Your task to perform on an android device: turn notification dots on Image 0: 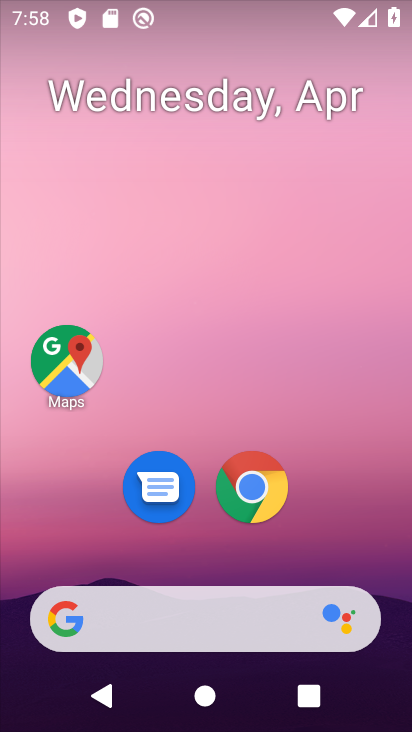
Step 0: drag from (369, 560) to (323, 132)
Your task to perform on an android device: turn notification dots on Image 1: 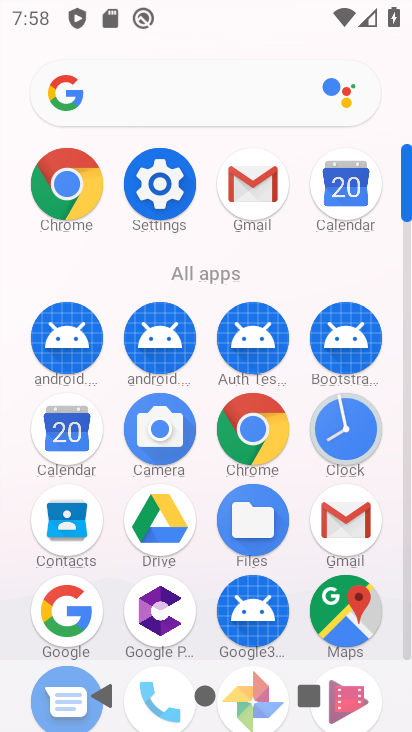
Step 1: click (173, 186)
Your task to perform on an android device: turn notification dots on Image 2: 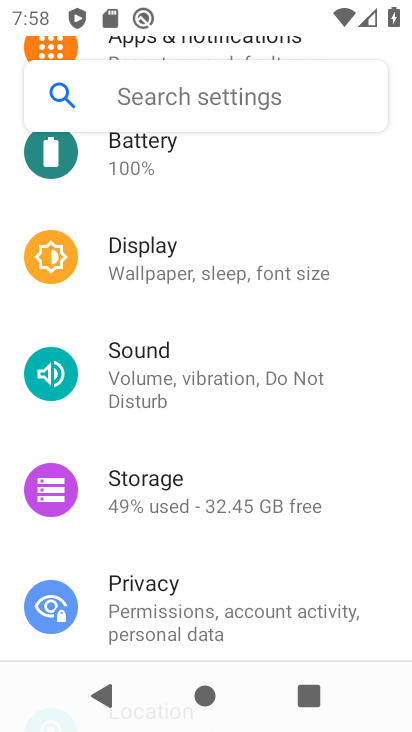
Step 2: drag from (263, 590) to (206, 117)
Your task to perform on an android device: turn notification dots on Image 3: 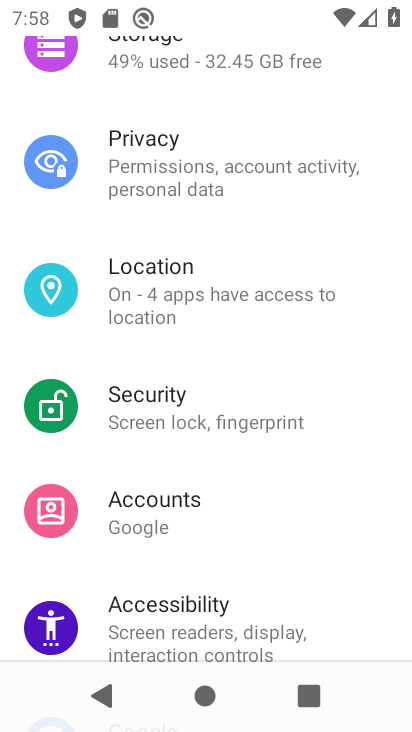
Step 3: drag from (272, 547) to (311, 171)
Your task to perform on an android device: turn notification dots on Image 4: 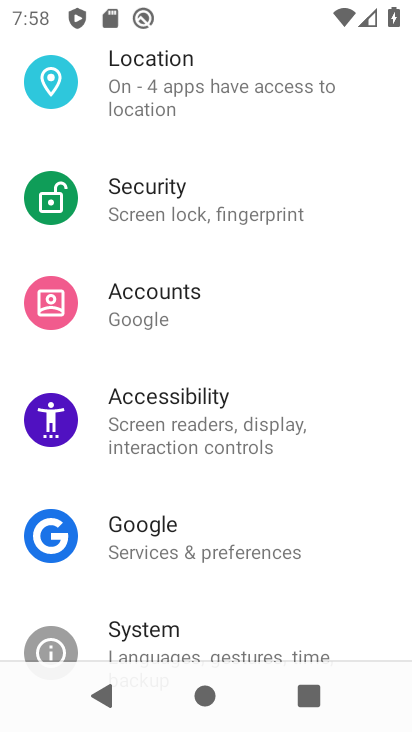
Step 4: drag from (287, 253) to (299, 552)
Your task to perform on an android device: turn notification dots on Image 5: 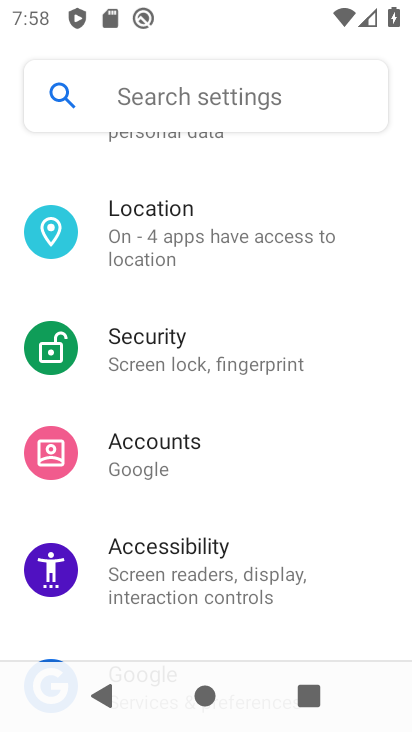
Step 5: drag from (331, 208) to (313, 538)
Your task to perform on an android device: turn notification dots on Image 6: 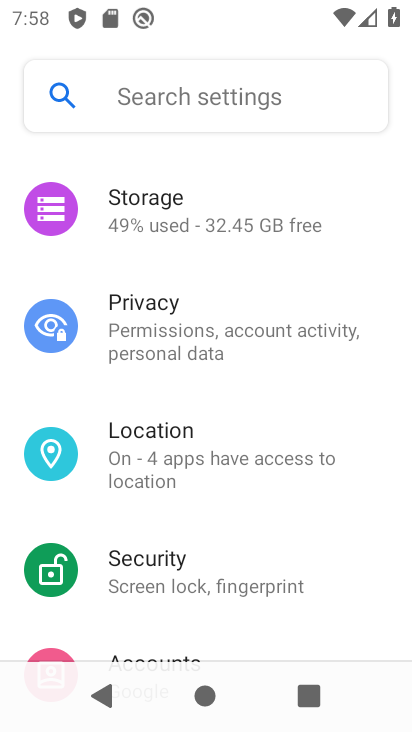
Step 6: drag from (272, 237) to (262, 556)
Your task to perform on an android device: turn notification dots on Image 7: 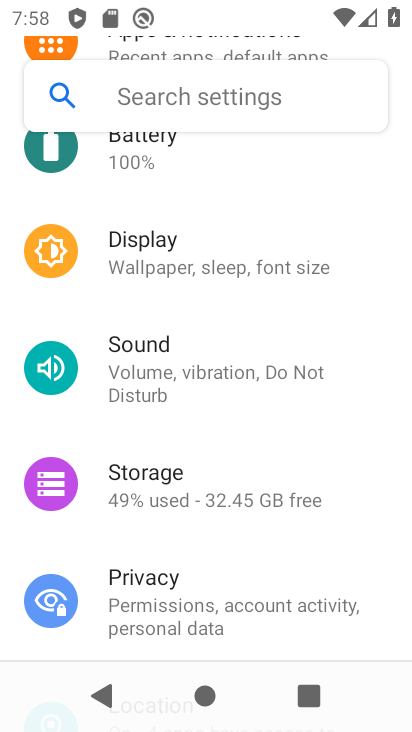
Step 7: drag from (274, 283) to (281, 571)
Your task to perform on an android device: turn notification dots on Image 8: 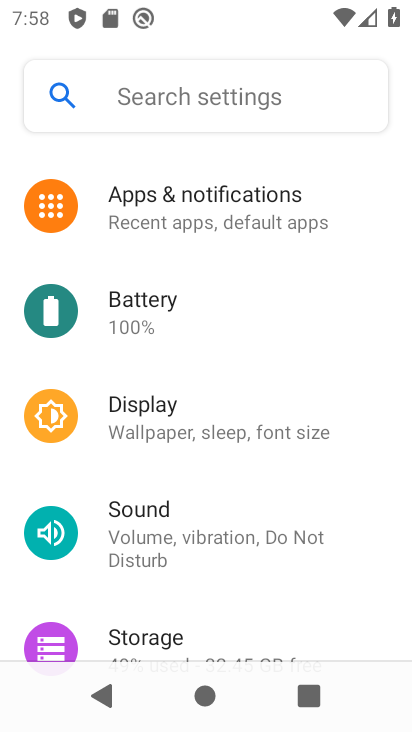
Step 8: drag from (255, 345) to (255, 492)
Your task to perform on an android device: turn notification dots on Image 9: 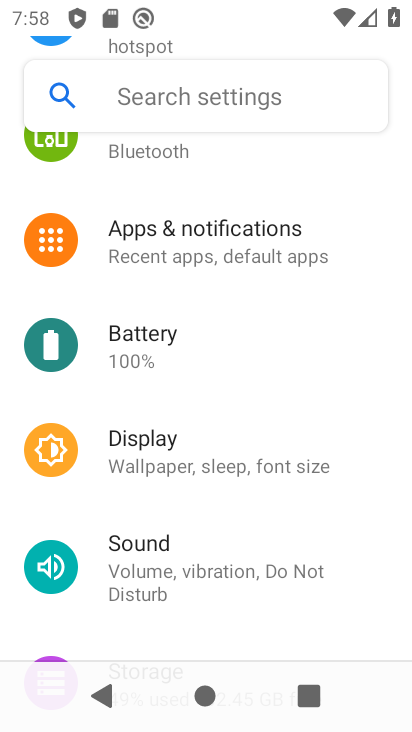
Step 9: drag from (260, 500) to (289, 144)
Your task to perform on an android device: turn notification dots on Image 10: 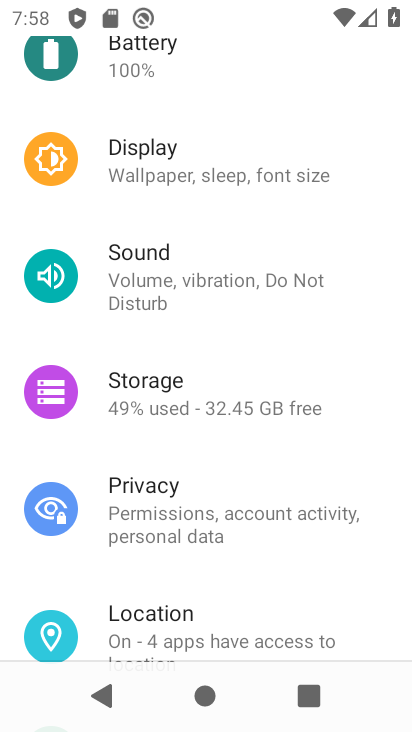
Step 10: drag from (236, 490) to (252, 191)
Your task to perform on an android device: turn notification dots on Image 11: 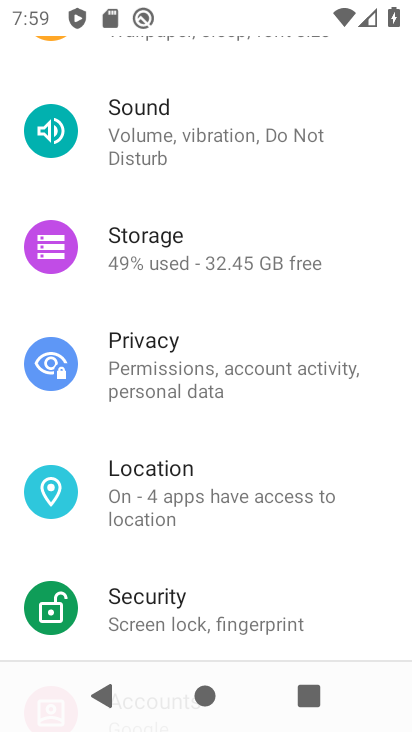
Step 11: drag from (168, 508) to (230, 225)
Your task to perform on an android device: turn notification dots on Image 12: 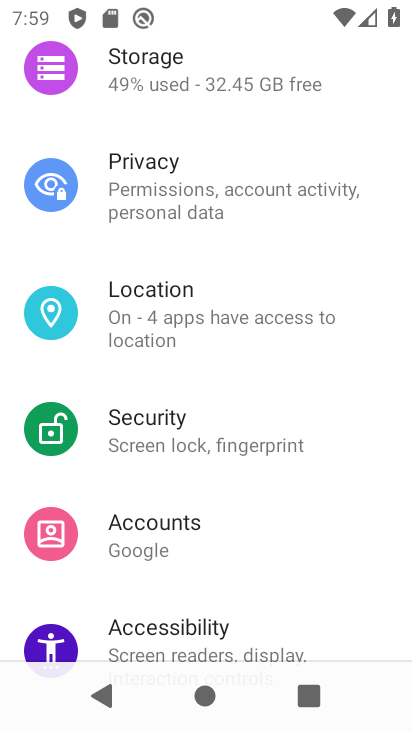
Step 12: drag from (190, 566) to (278, 222)
Your task to perform on an android device: turn notification dots on Image 13: 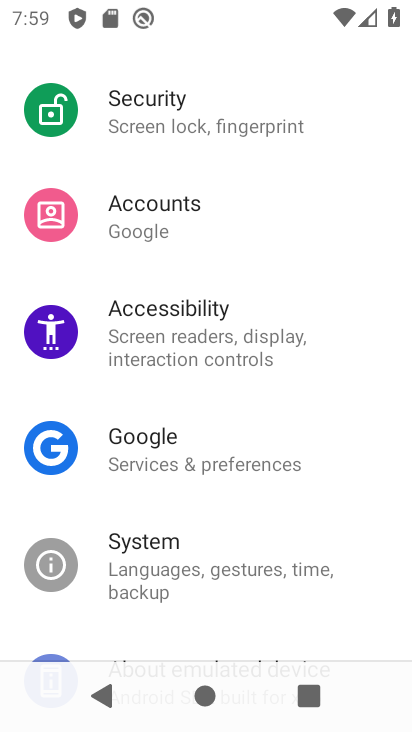
Step 13: drag from (265, 522) to (271, 191)
Your task to perform on an android device: turn notification dots on Image 14: 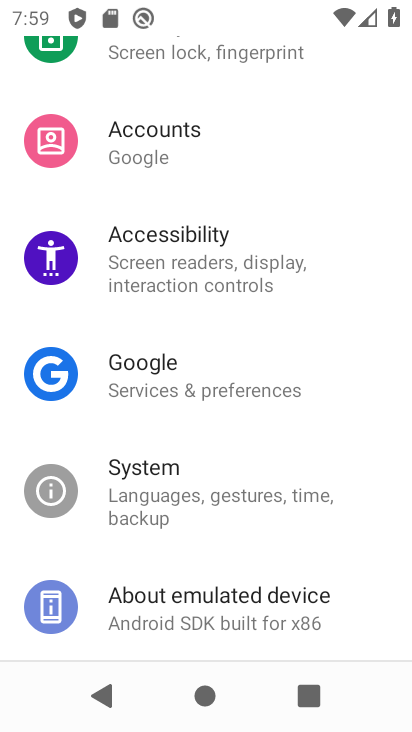
Step 14: drag from (283, 196) to (300, 525)
Your task to perform on an android device: turn notification dots on Image 15: 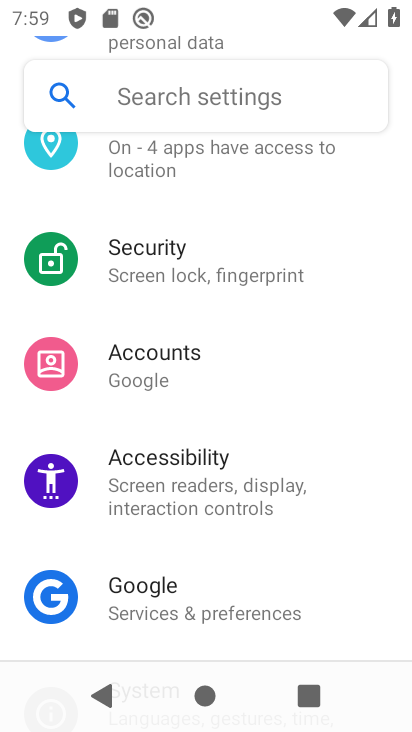
Step 15: drag from (302, 222) to (279, 538)
Your task to perform on an android device: turn notification dots on Image 16: 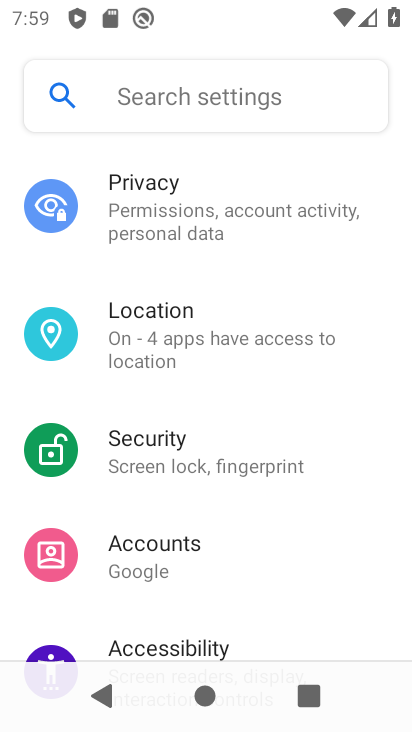
Step 16: drag from (284, 285) to (269, 536)
Your task to perform on an android device: turn notification dots on Image 17: 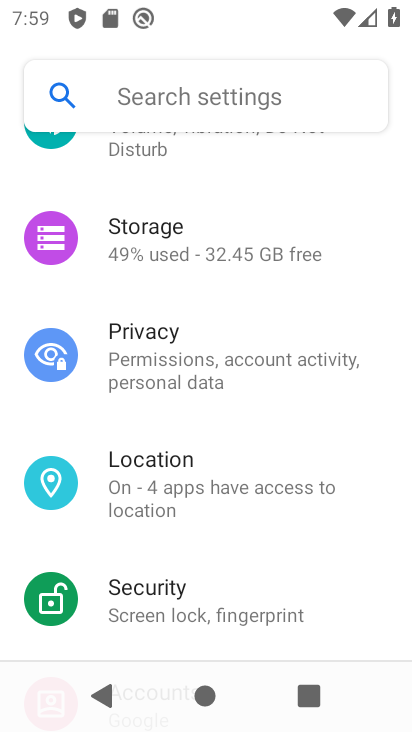
Step 17: drag from (252, 243) to (257, 536)
Your task to perform on an android device: turn notification dots on Image 18: 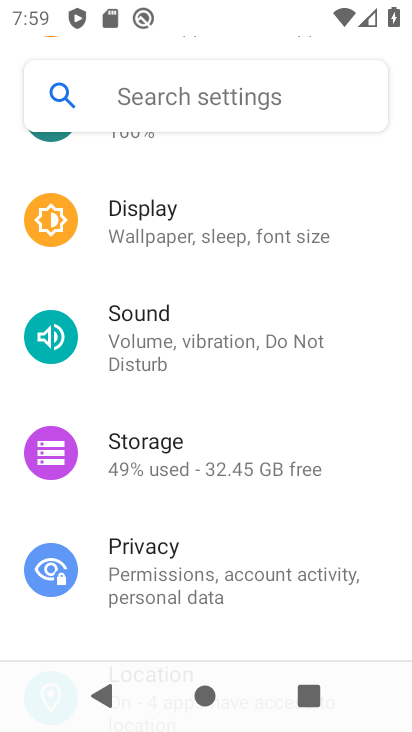
Step 18: drag from (271, 252) to (258, 536)
Your task to perform on an android device: turn notification dots on Image 19: 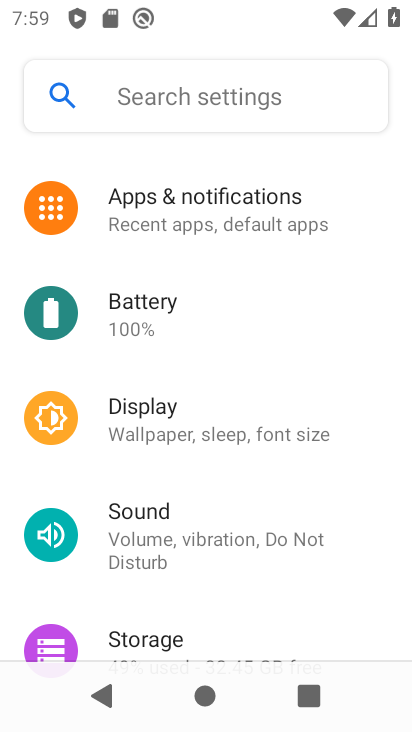
Step 19: click (244, 224)
Your task to perform on an android device: turn notification dots on Image 20: 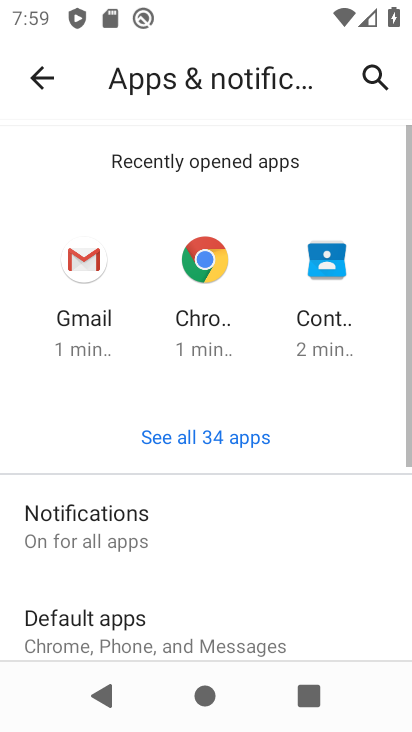
Step 20: click (137, 520)
Your task to perform on an android device: turn notification dots on Image 21: 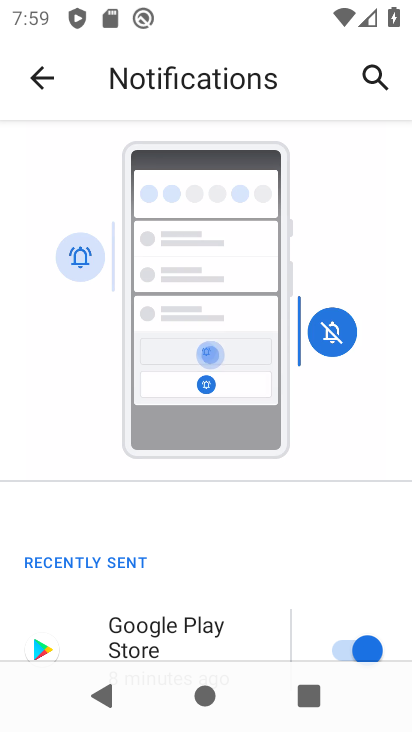
Step 21: drag from (275, 539) to (318, 54)
Your task to perform on an android device: turn notification dots on Image 22: 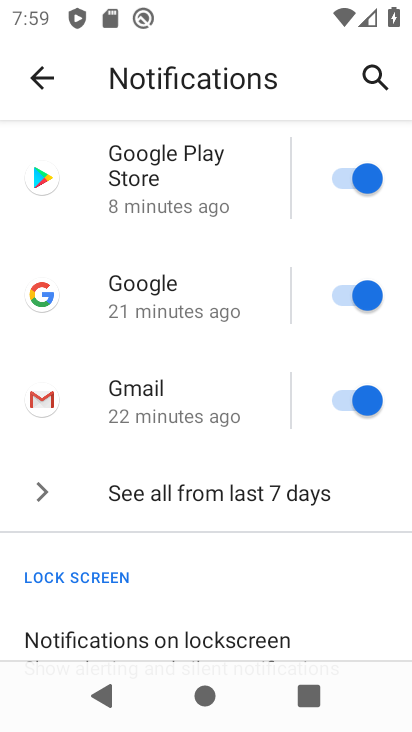
Step 22: drag from (224, 573) to (249, 222)
Your task to perform on an android device: turn notification dots on Image 23: 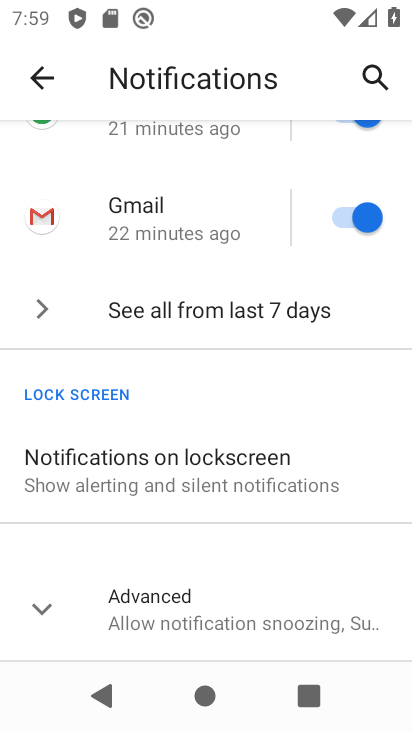
Step 23: click (168, 579)
Your task to perform on an android device: turn notification dots on Image 24: 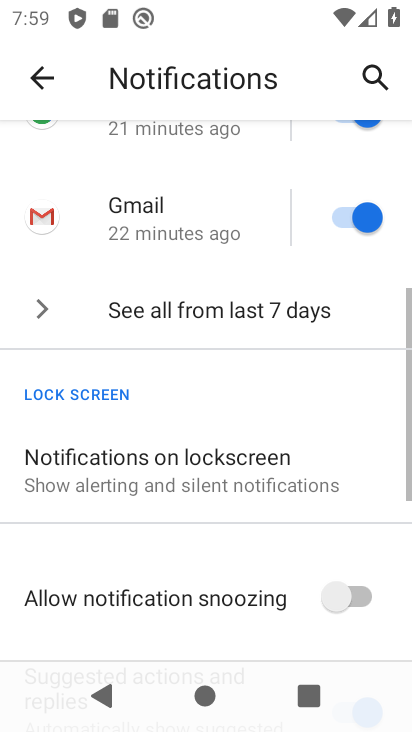
Step 24: task complete